Your task to perform on an android device: When is my next meeting? Image 0: 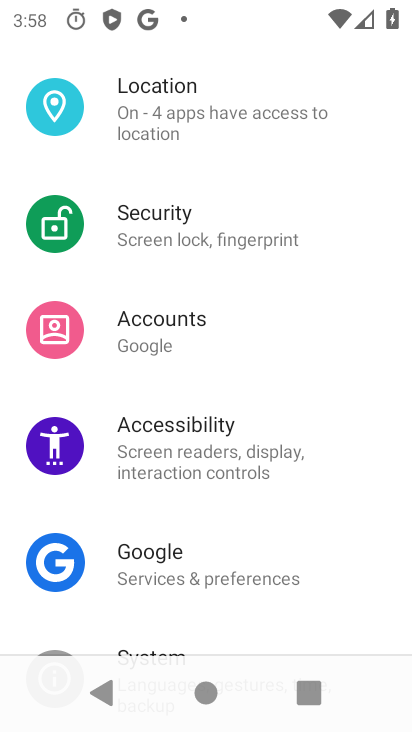
Step 0: press home button
Your task to perform on an android device: When is my next meeting? Image 1: 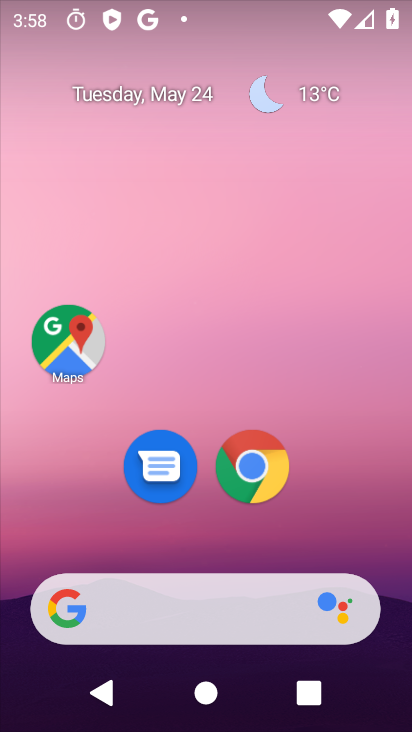
Step 1: drag from (326, 536) to (303, 168)
Your task to perform on an android device: When is my next meeting? Image 2: 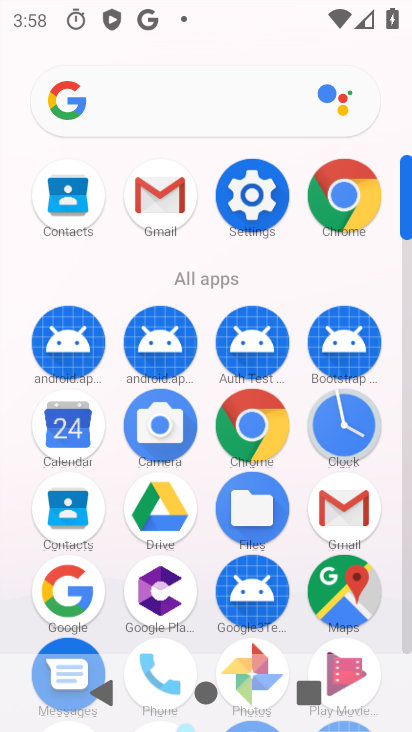
Step 2: click (76, 415)
Your task to perform on an android device: When is my next meeting? Image 3: 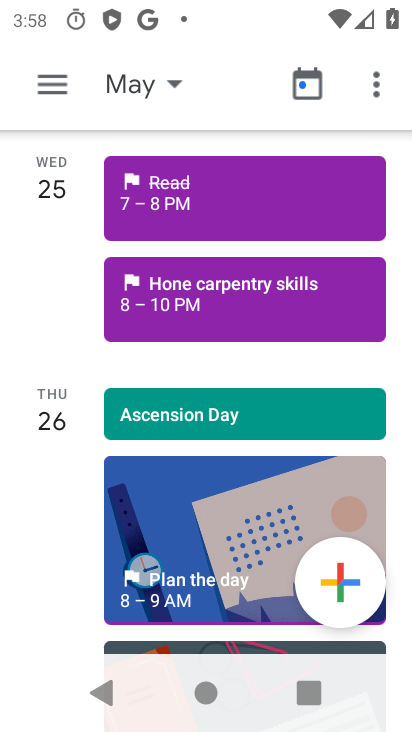
Step 3: task complete